Your task to perform on an android device: Show me productivity apps on the Play Store Image 0: 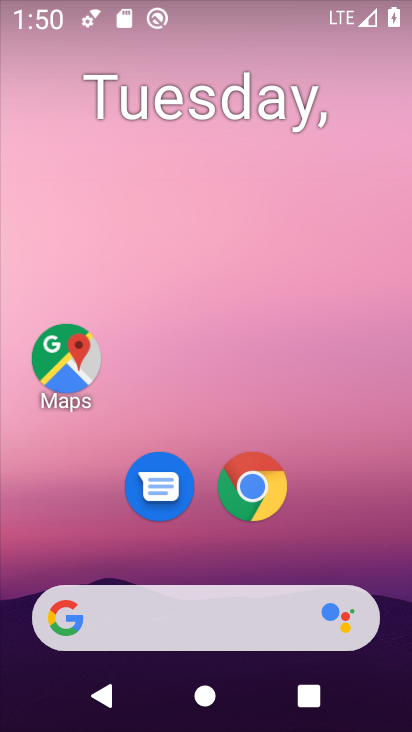
Step 0: press home button
Your task to perform on an android device: Show me productivity apps on the Play Store Image 1: 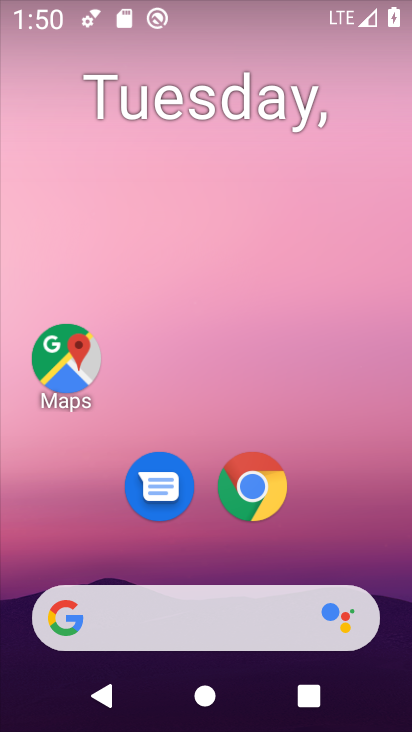
Step 1: drag from (351, 558) to (372, 114)
Your task to perform on an android device: Show me productivity apps on the Play Store Image 2: 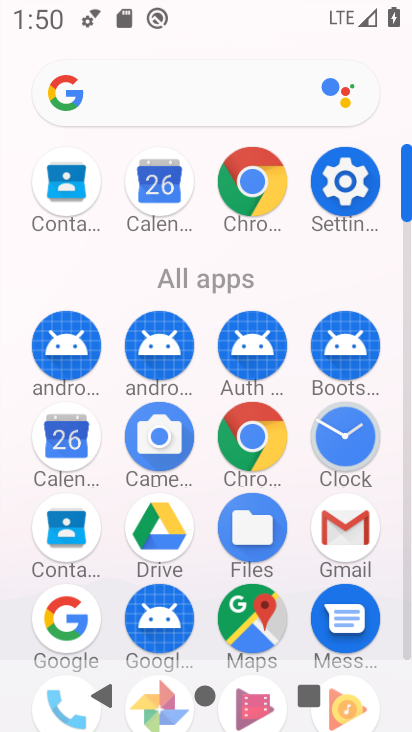
Step 2: drag from (394, 583) to (393, 324)
Your task to perform on an android device: Show me productivity apps on the Play Store Image 3: 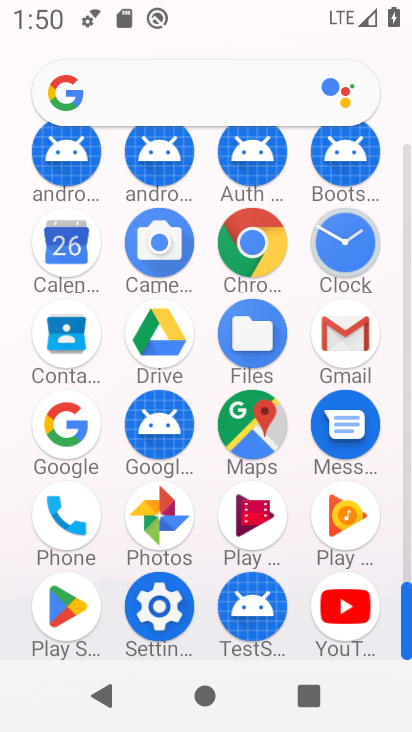
Step 3: click (75, 602)
Your task to perform on an android device: Show me productivity apps on the Play Store Image 4: 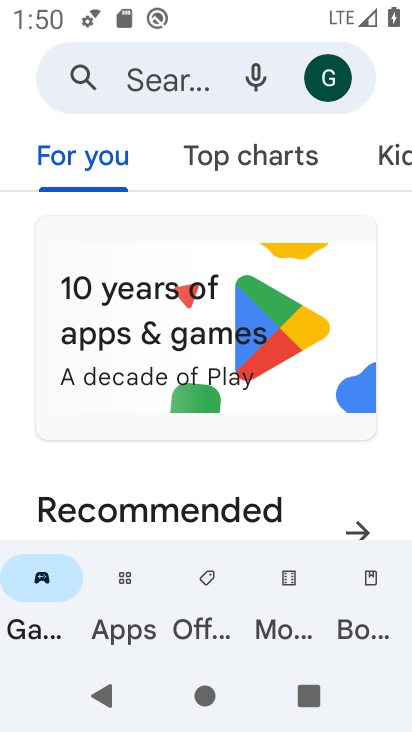
Step 4: click (137, 610)
Your task to perform on an android device: Show me productivity apps on the Play Store Image 5: 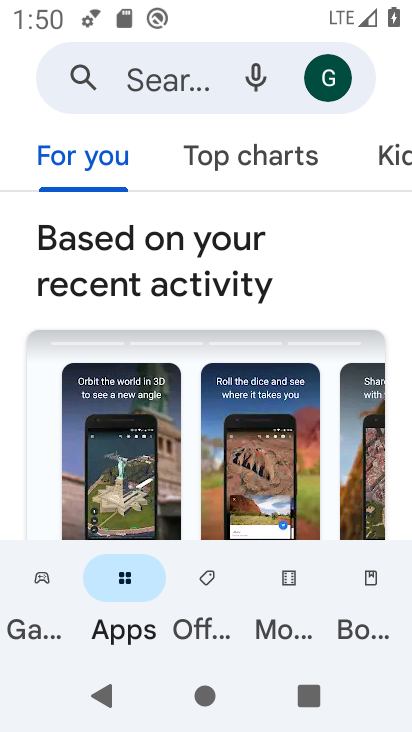
Step 5: task complete